Your task to perform on an android device: Go to Wikipedia Image 0: 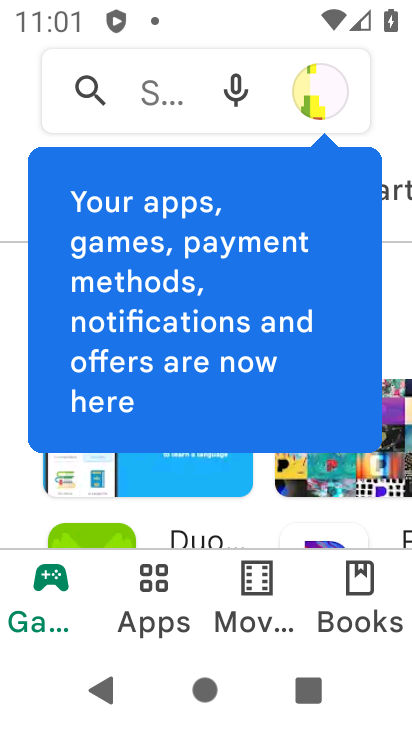
Step 0: press back button
Your task to perform on an android device: Go to Wikipedia Image 1: 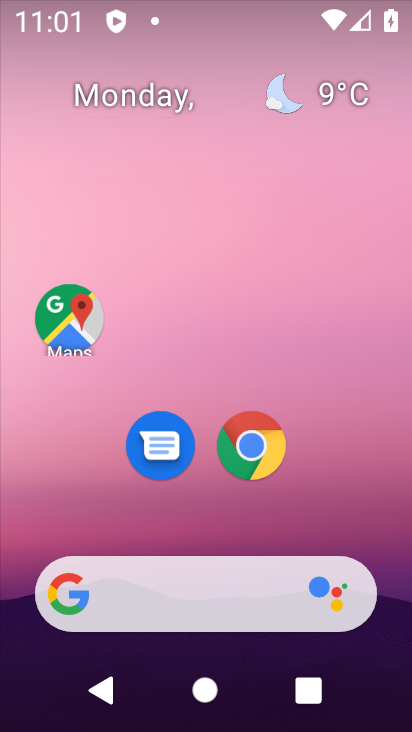
Step 1: click (270, 413)
Your task to perform on an android device: Go to Wikipedia Image 2: 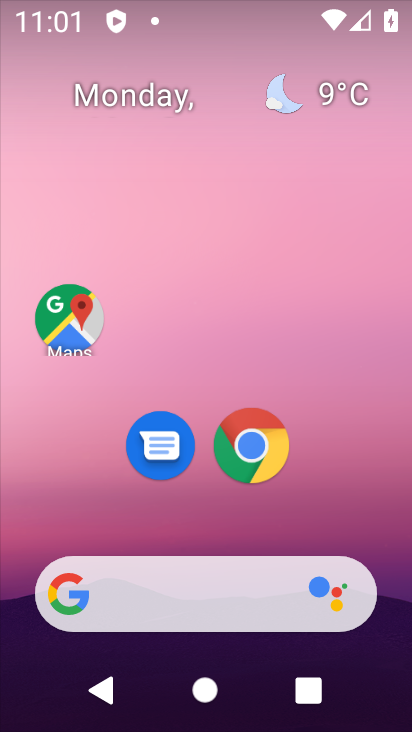
Step 2: click (260, 429)
Your task to perform on an android device: Go to Wikipedia Image 3: 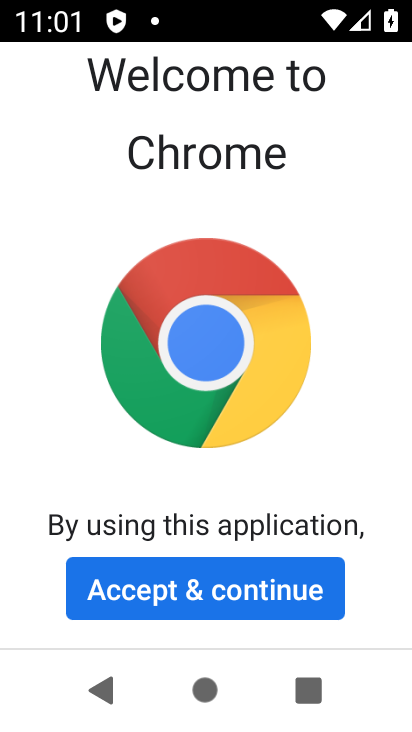
Step 3: click (278, 604)
Your task to perform on an android device: Go to Wikipedia Image 4: 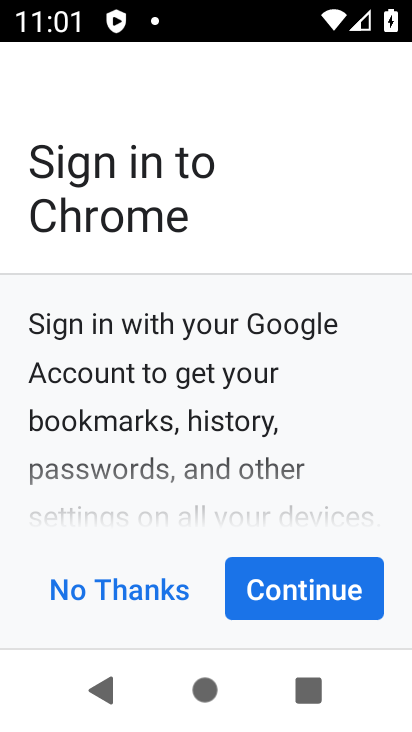
Step 4: click (289, 601)
Your task to perform on an android device: Go to Wikipedia Image 5: 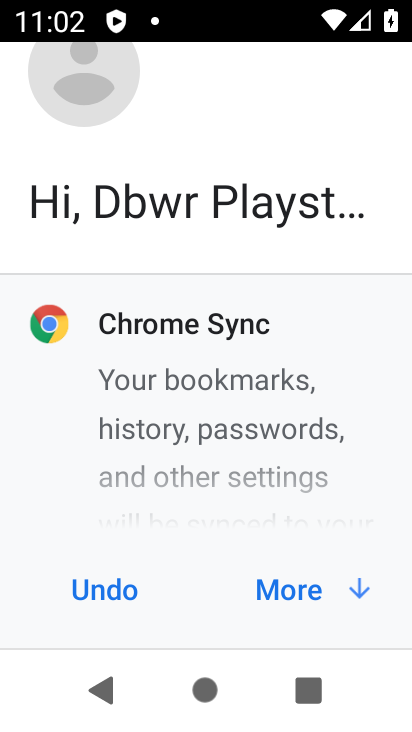
Step 5: click (109, 592)
Your task to perform on an android device: Go to Wikipedia Image 6: 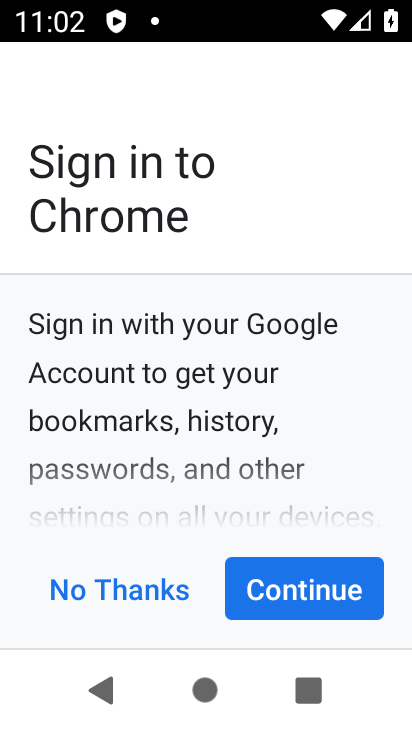
Step 6: click (109, 589)
Your task to perform on an android device: Go to Wikipedia Image 7: 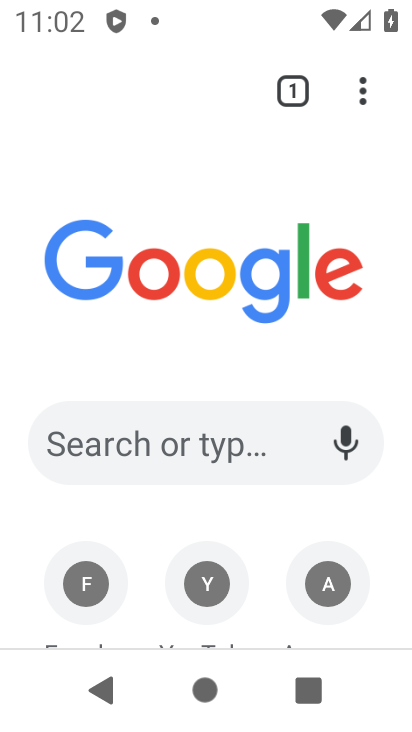
Step 7: click (228, 84)
Your task to perform on an android device: Go to Wikipedia Image 8: 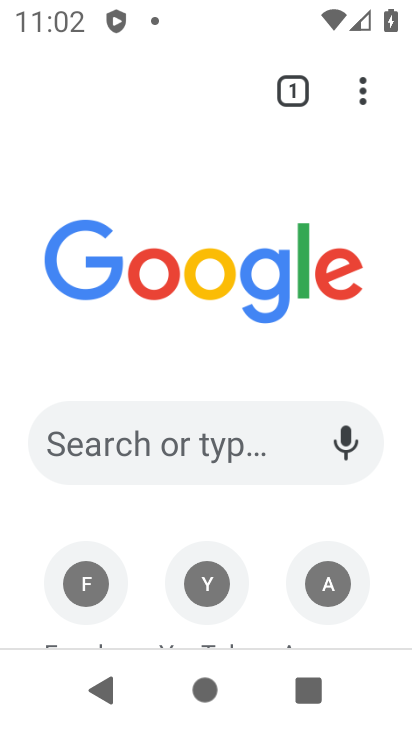
Step 8: click (228, 84)
Your task to perform on an android device: Go to Wikipedia Image 9: 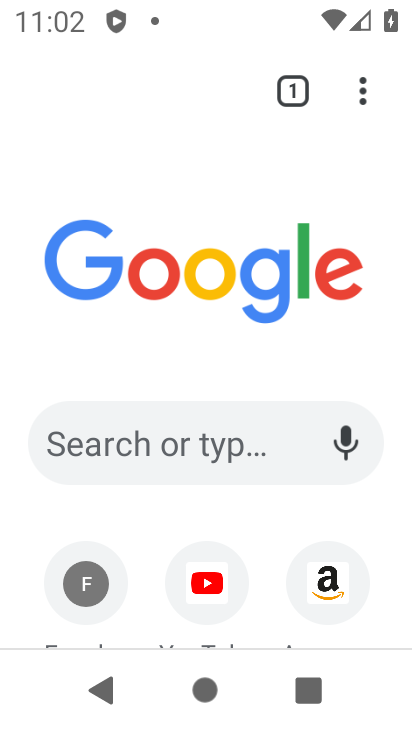
Step 9: click (252, 440)
Your task to perform on an android device: Go to Wikipedia Image 10: 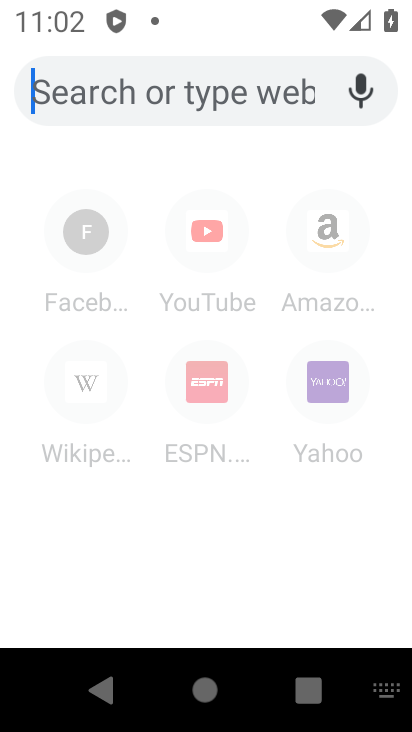
Step 10: type "wikipedia"
Your task to perform on an android device: Go to Wikipedia Image 11: 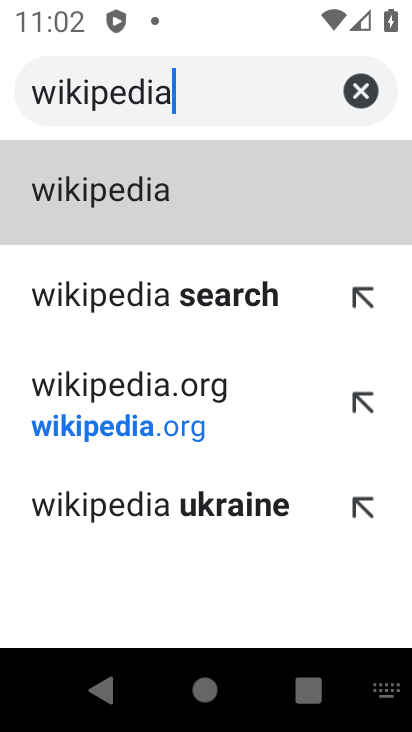
Step 11: click (187, 189)
Your task to perform on an android device: Go to Wikipedia Image 12: 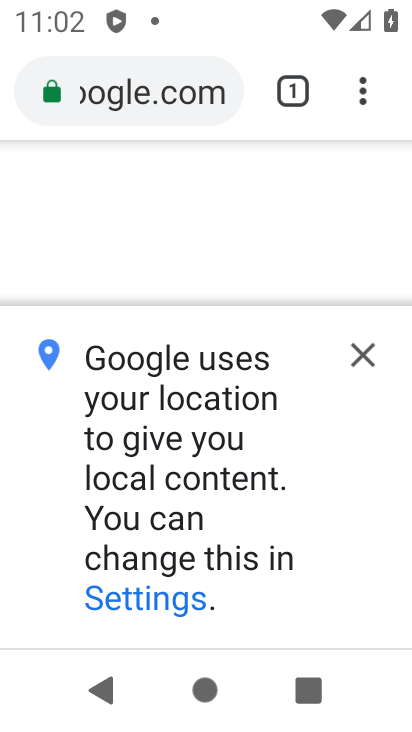
Step 12: click (366, 358)
Your task to perform on an android device: Go to Wikipedia Image 13: 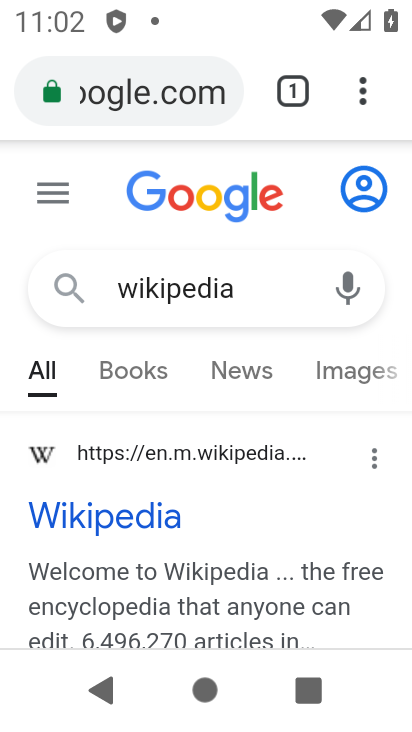
Step 13: task complete